Your task to perform on an android device: delete browsing data in the chrome app Image 0: 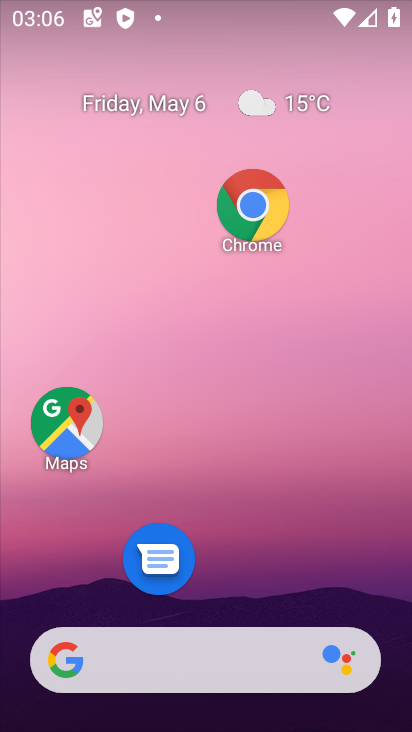
Step 0: click (239, 197)
Your task to perform on an android device: delete browsing data in the chrome app Image 1: 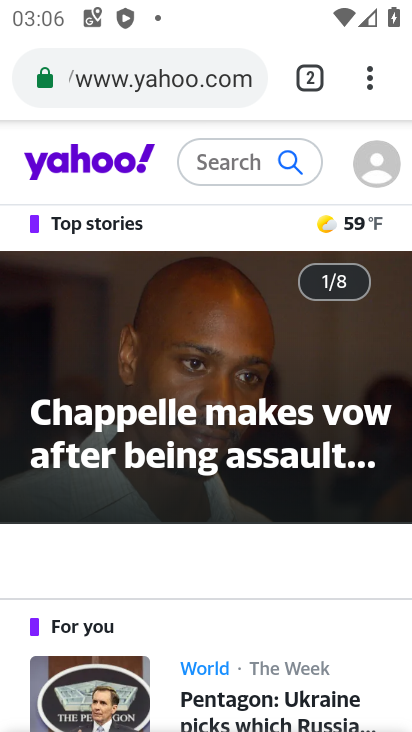
Step 1: click (363, 68)
Your task to perform on an android device: delete browsing data in the chrome app Image 2: 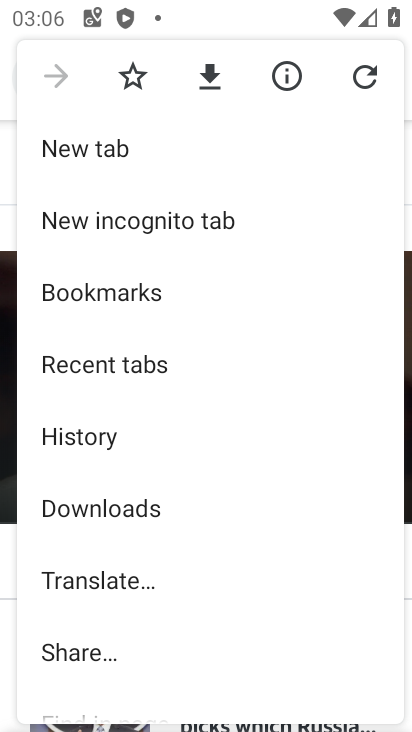
Step 2: click (159, 438)
Your task to perform on an android device: delete browsing data in the chrome app Image 3: 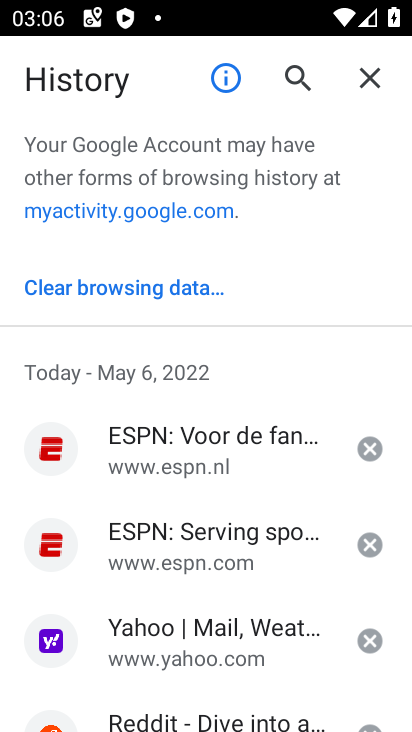
Step 3: click (138, 311)
Your task to perform on an android device: delete browsing data in the chrome app Image 4: 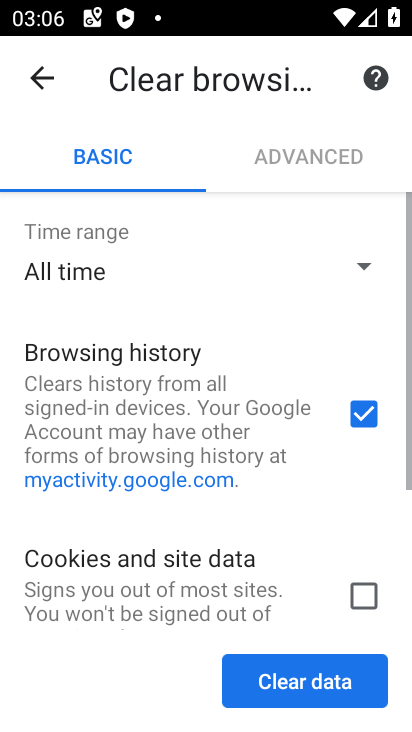
Step 4: click (363, 674)
Your task to perform on an android device: delete browsing data in the chrome app Image 5: 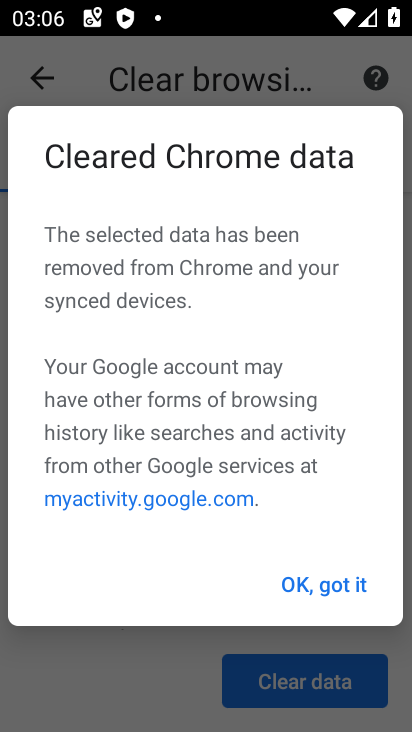
Step 5: task complete